Your task to perform on an android device: open the mobile data screen to see how much data has been used Image 0: 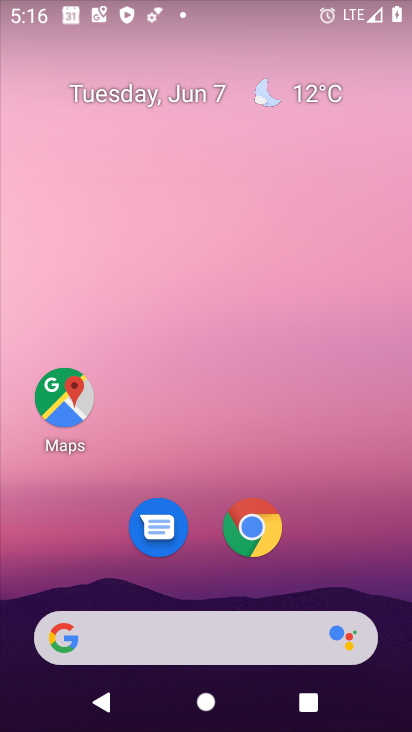
Step 0: drag from (344, 576) to (248, 111)
Your task to perform on an android device: open the mobile data screen to see how much data has been used Image 1: 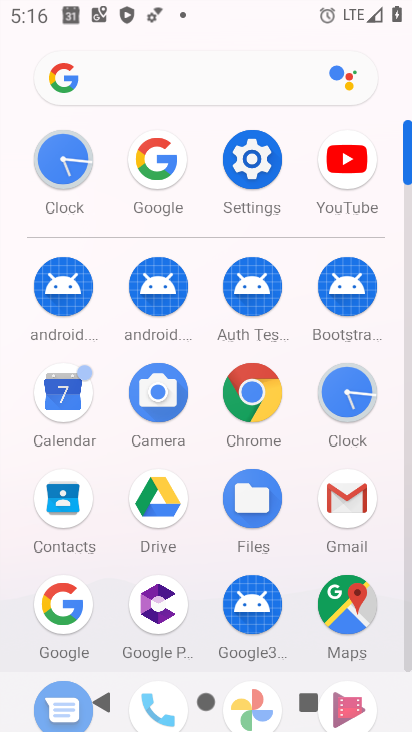
Step 1: click (251, 162)
Your task to perform on an android device: open the mobile data screen to see how much data has been used Image 2: 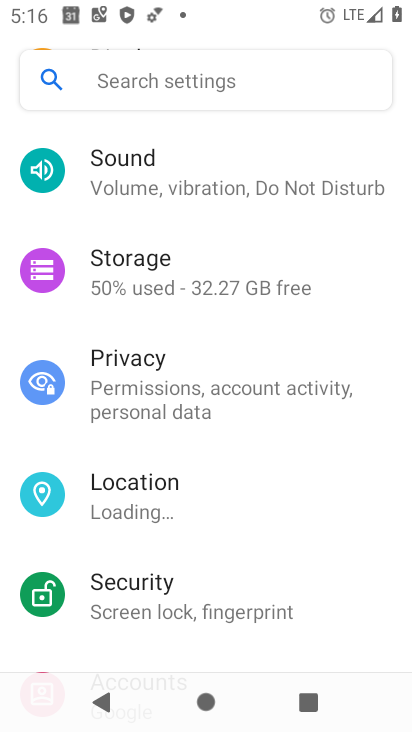
Step 2: drag from (180, 337) to (175, 480)
Your task to perform on an android device: open the mobile data screen to see how much data has been used Image 3: 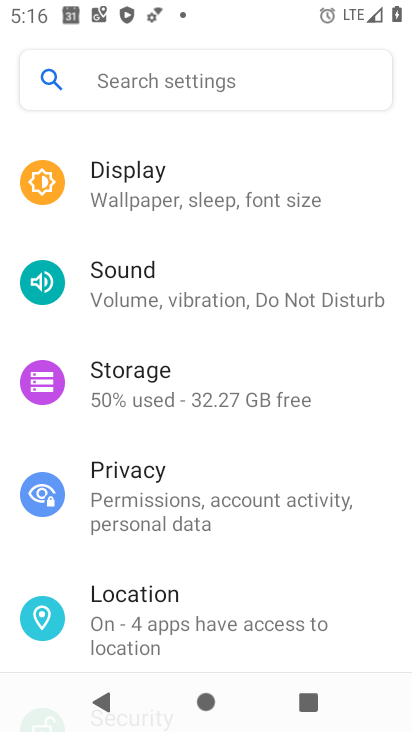
Step 3: drag from (215, 251) to (217, 459)
Your task to perform on an android device: open the mobile data screen to see how much data has been used Image 4: 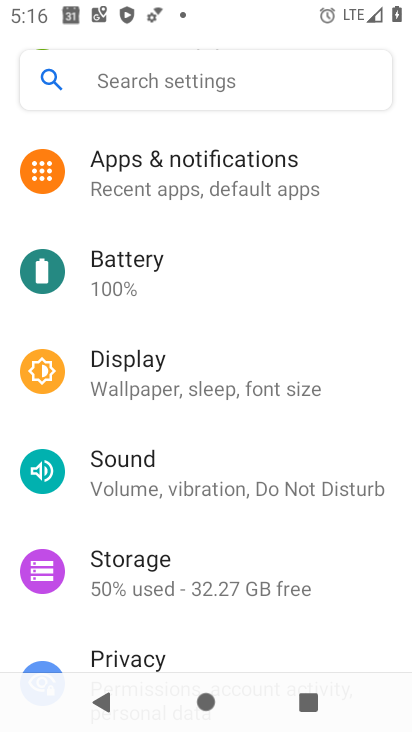
Step 4: drag from (204, 254) to (172, 408)
Your task to perform on an android device: open the mobile data screen to see how much data has been used Image 5: 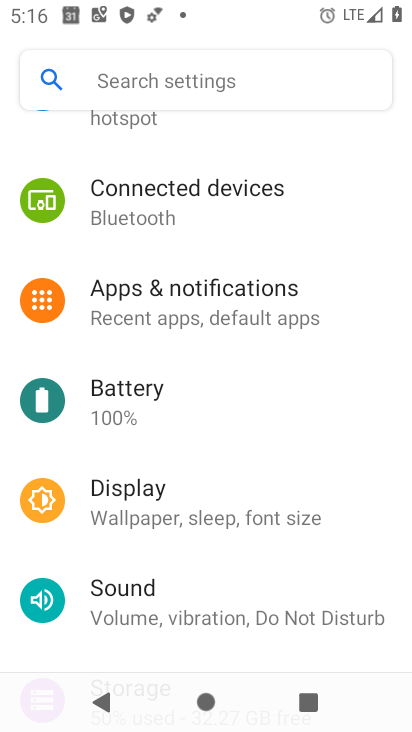
Step 5: drag from (181, 227) to (164, 452)
Your task to perform on an android device: open the mobile data screen to see how much data has been used Image 6: 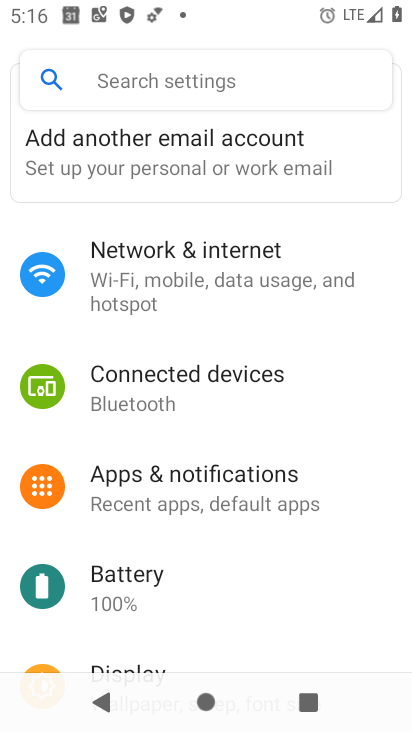
Step 6: click (206, 259)
Your task to perform on an android device: open the mobile data screen to see how much data has been used Image 7: 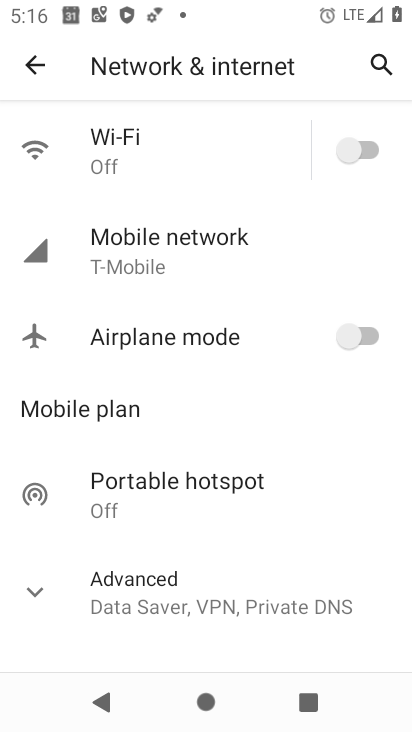
Step 7: click (175, 231)
Your task to perform on an android device: open the mobile data screen to see how much data has been used Image 8: 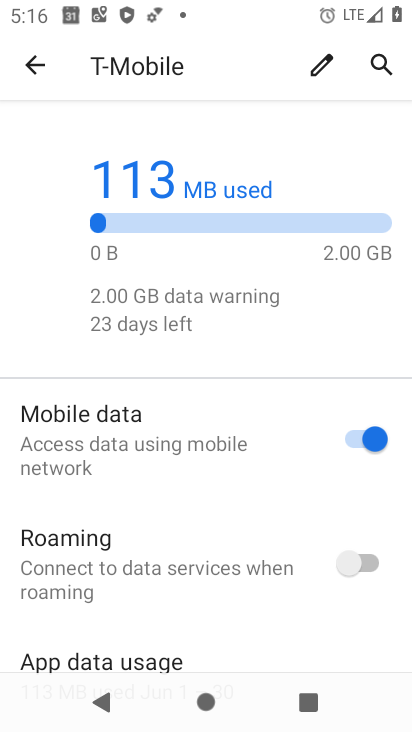
Step 8: task complete